Your task to perform on an android device: turn off notifications settings in the gmail app Image 0: 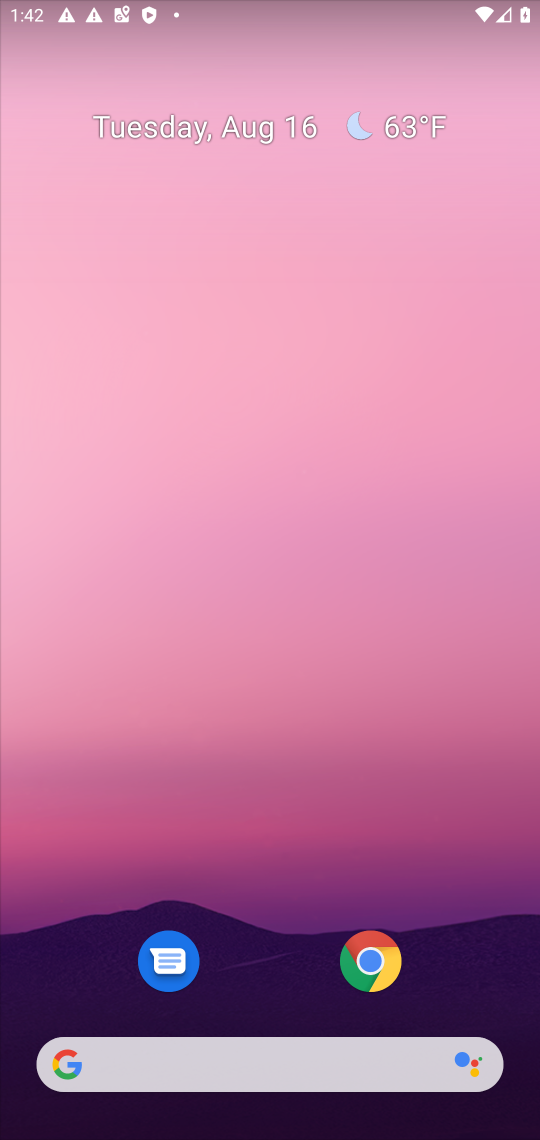
Step 0: drag from (497, 944) to (194, 84)
Your task to perform on an android device: turn off notifications settings in the gmail app Image 1: 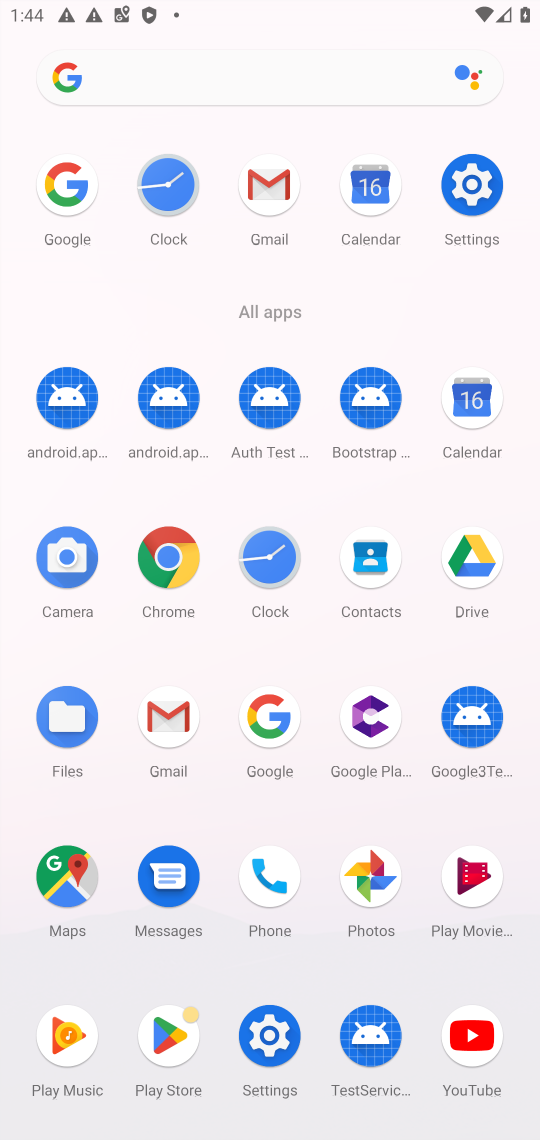
Step 1: click (177, 727)
Your task to perform on an android device: turn off notifications settings in the gmail app Image 2: 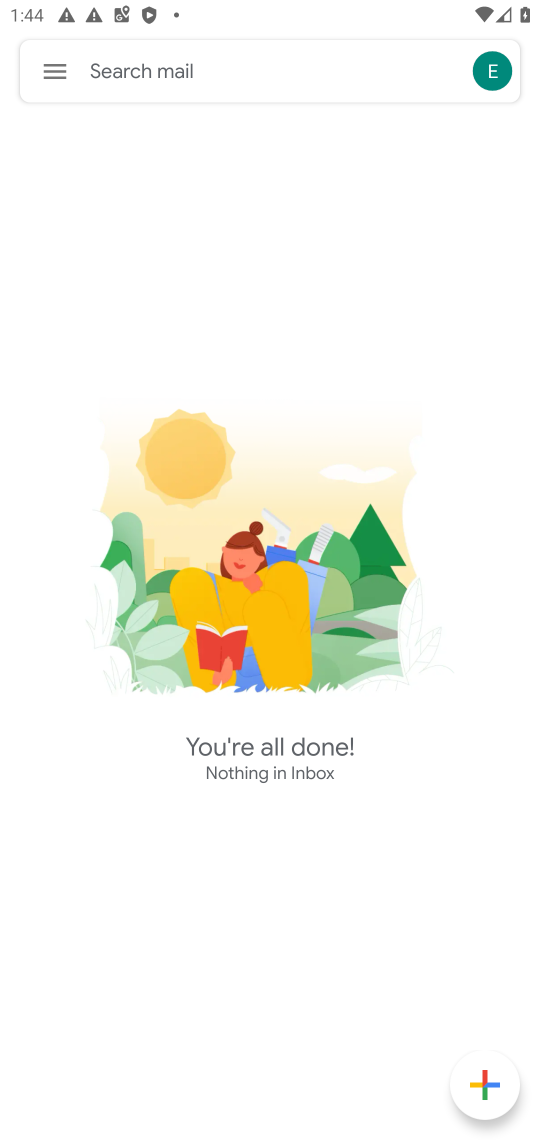
Step 2: click (48, 82)
Your task to perform on an android device: turn off notifications settings in the gmail app Image 3: 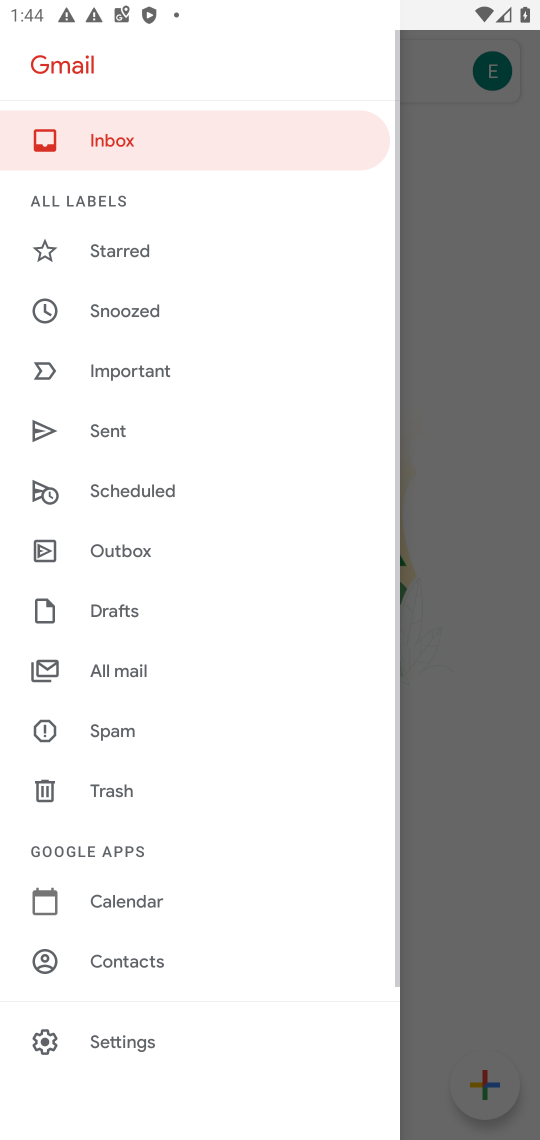
Step 3: click (163, 1042)
Your task to perform on an android device: turn off notifications settings in the gmail app Image 4: 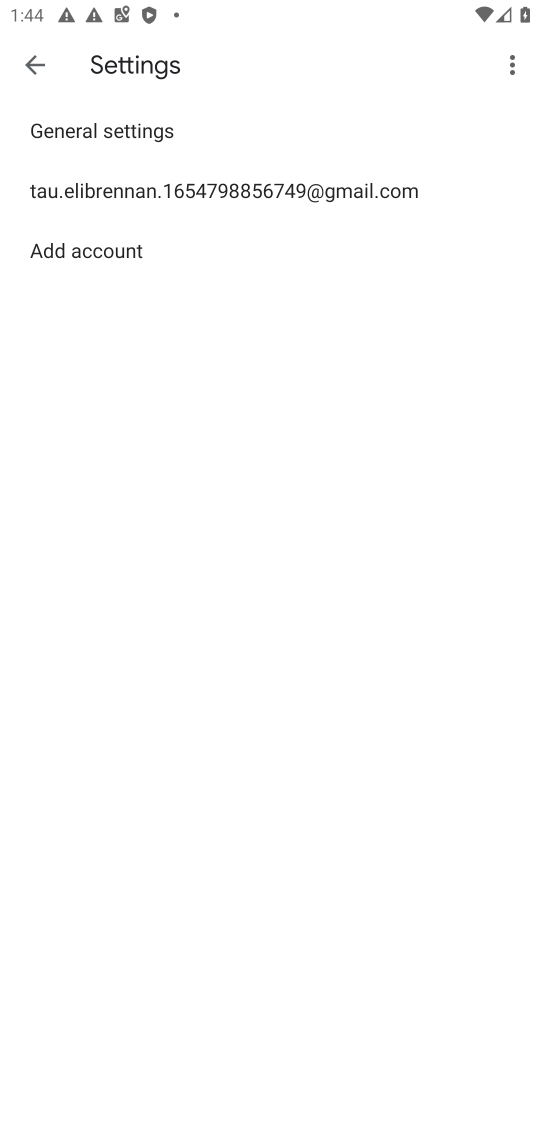
Step 4: click (125, 189)
Your task to perform on an android device: turn off notifications settings in the gmail app Image 5: 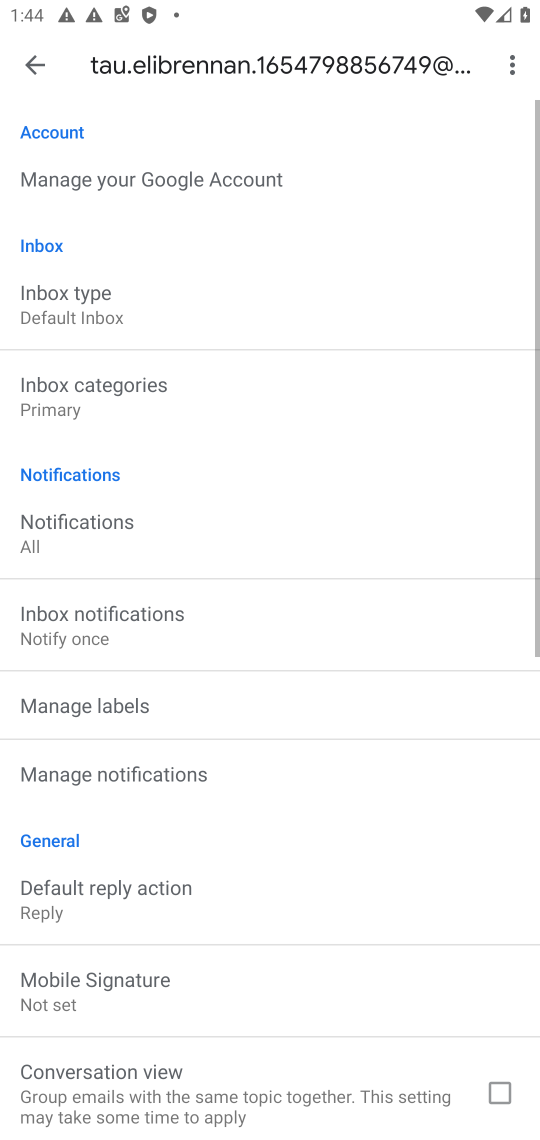
Step 5: click (52, 529)
Your task to perform on an android device: turn off notifications settings in the gmail app Image 6: 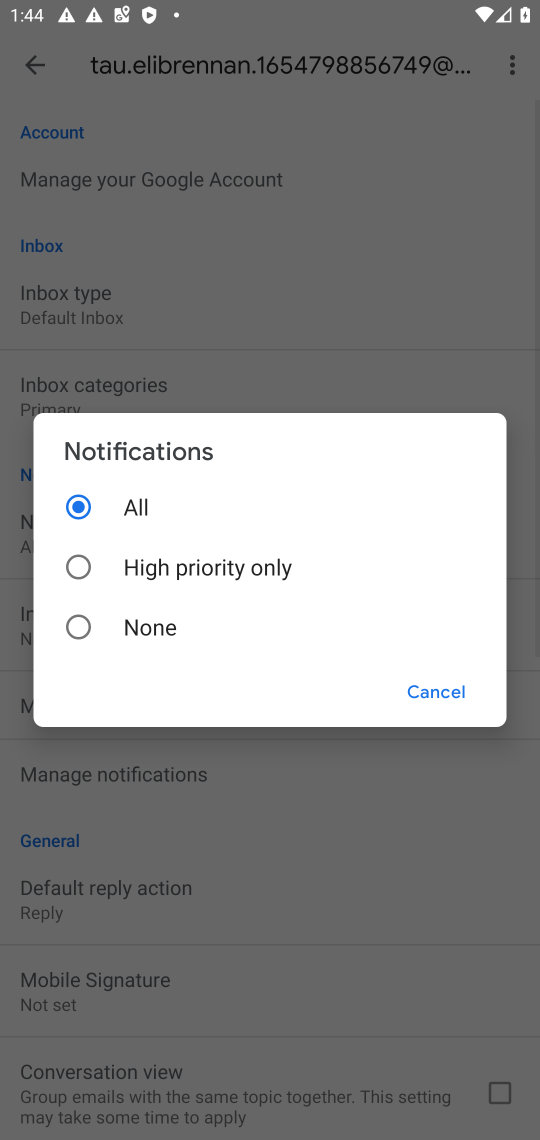
Step 6: click (98, 625)
Your task to perform on an android device: turn off notifications settings in the gmail app Image 7: 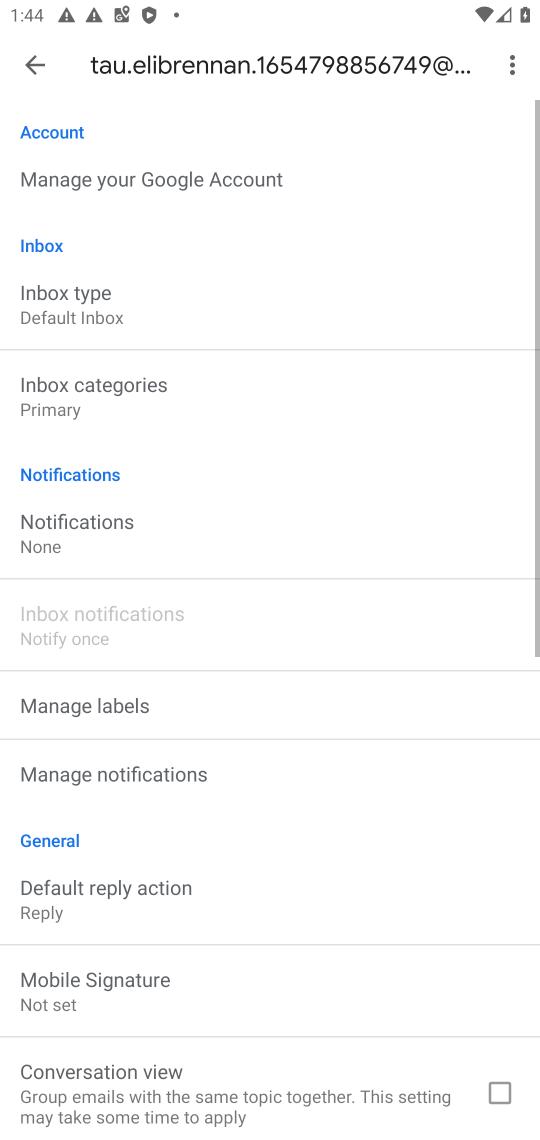
Step 7: task complete